Your task to perform on an android device: Go to Google maps Image 0: 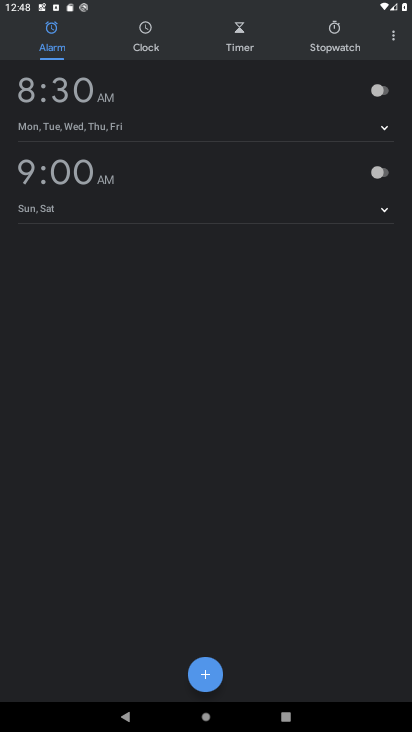
Step 0: press home button
Your task to perform on an android device: Go to Google maps Image 1: 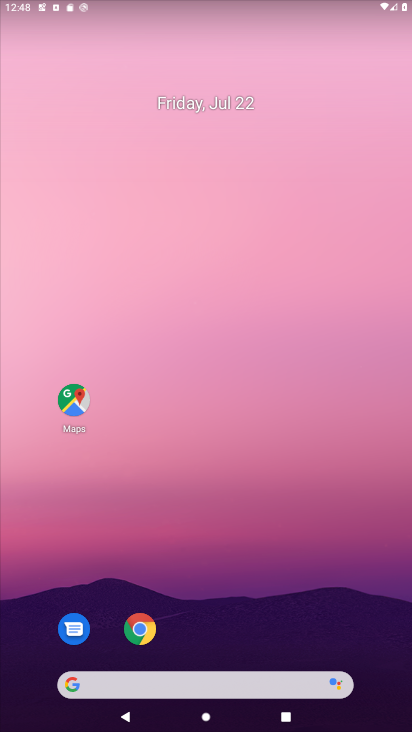
Step 1: drag from (243, 568) to (209, 84)
Your task to perform on an android device: Go to Google maps Image 2: 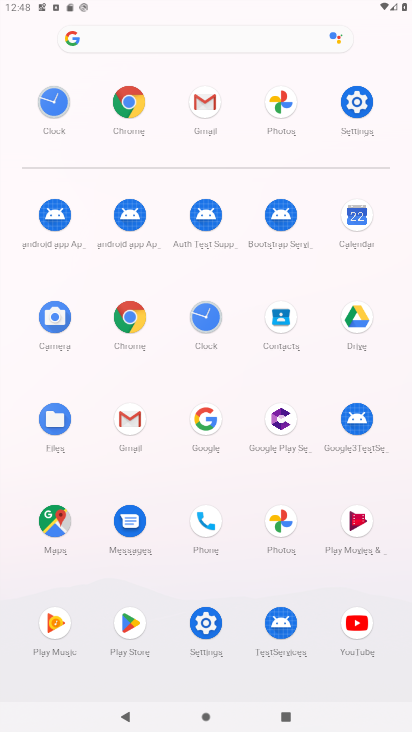
Step 2: click (45, 526)
Your task to perform on an android device: Go to Google maps Image 3: 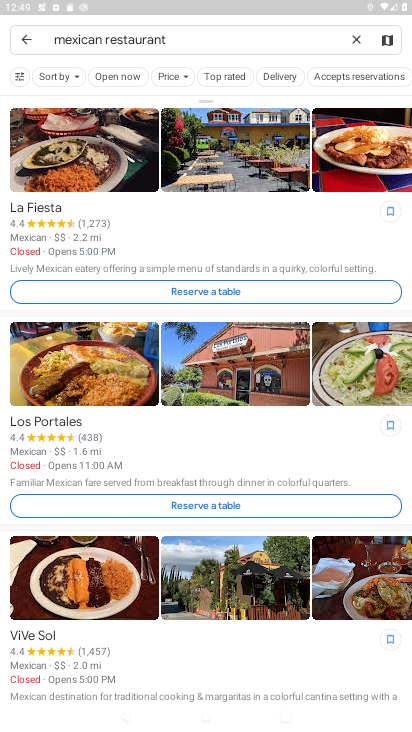
Step 3: task complete